Your task to perform on an android device: What's the weather? Image 0: 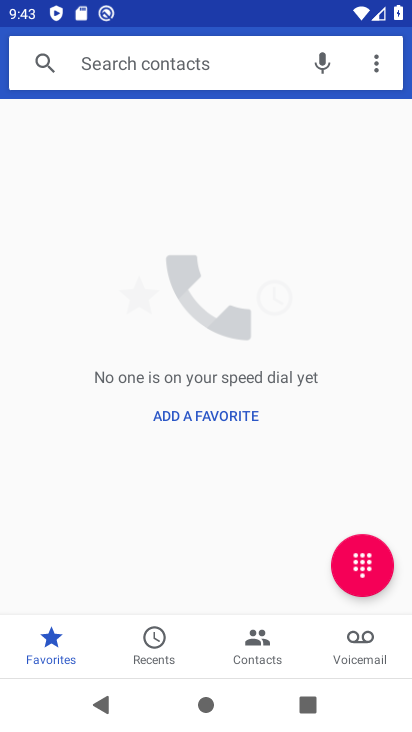
Step 0: press home button
Your task to perform on an android device: What's the weather? Image 1: 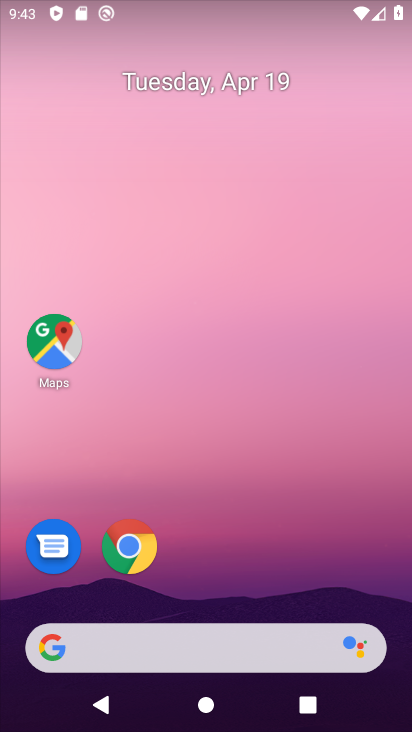
Step 1: drag from (193, 605) to (173, 4)
Your task to perform on an android device: What's the weather? Image 2: 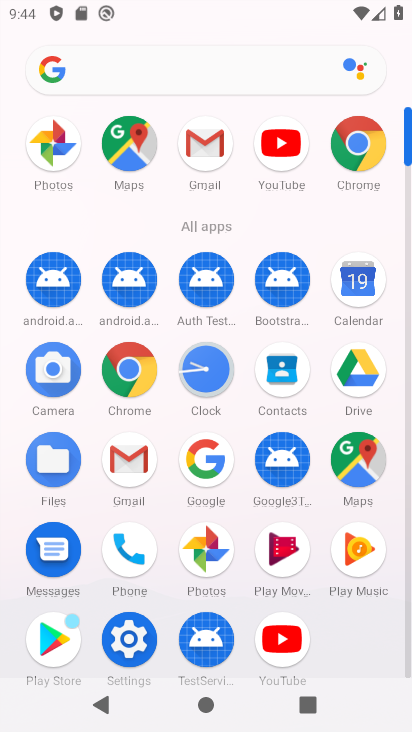
Step 2: click (211, 470)
Your task to perform on an android device: What's the weather? Image 3: 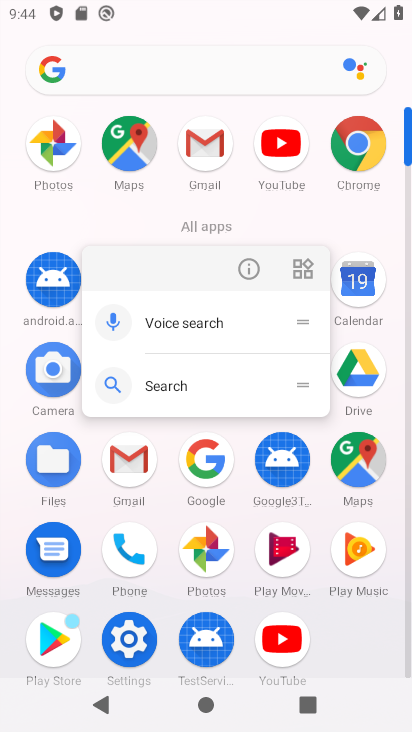
Step 3: click (211, 457)
Your task to perform on an android device: What's the weather? Image 4: 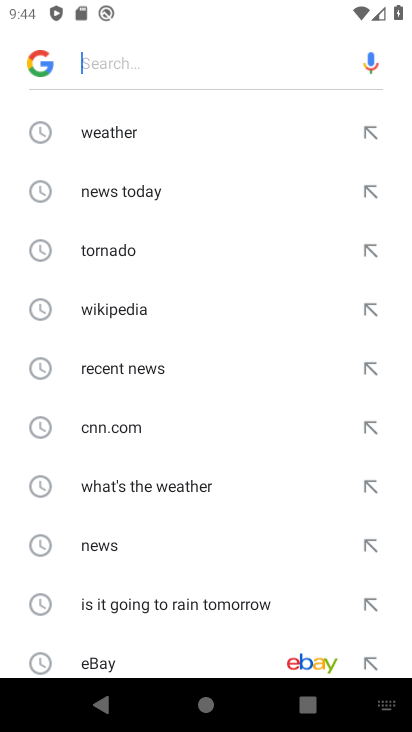
Step 4: click (138, 139)
Your task to perform on an android device: What's the weather? Image 5: 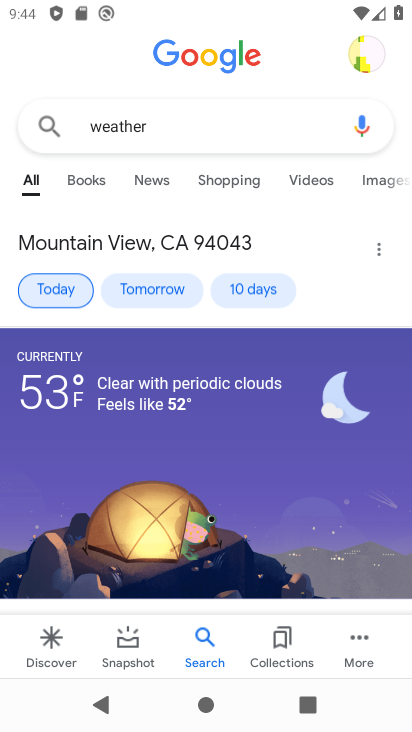
Step 5: task complete